Your task to perform on an android device: Show me popular games on the Play Store Image 0: 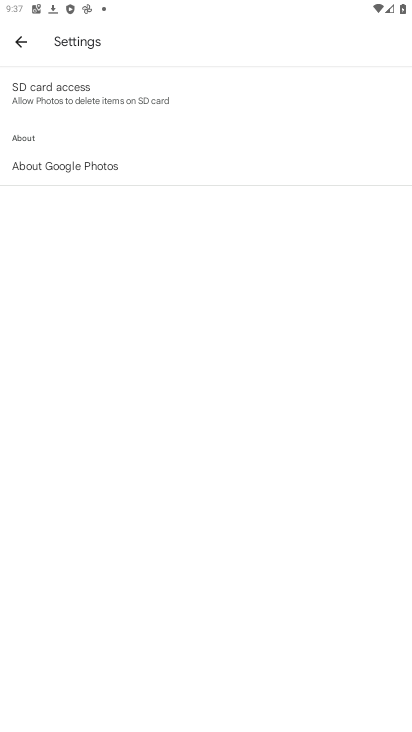
Step 0: press home button
Your task to perform on an android device: Show me popular games on the Play Store Image 1: 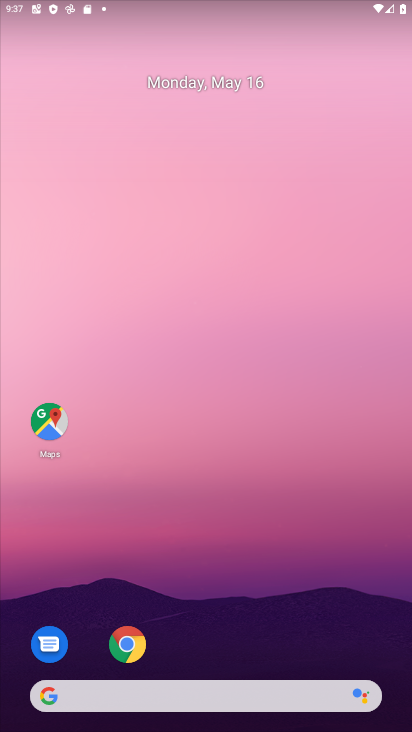
Step 1: drag from (176, 659) to (274, 48)
Your task to perform on an android device: Show me popular games on the Play Store Image 2: 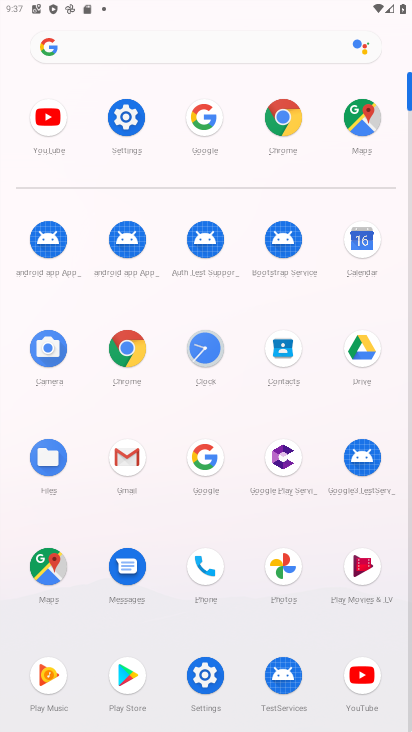
Step 2: click (124, 678)
Your task to perform on an android device: Show me popular games on the Play Store Image 3: 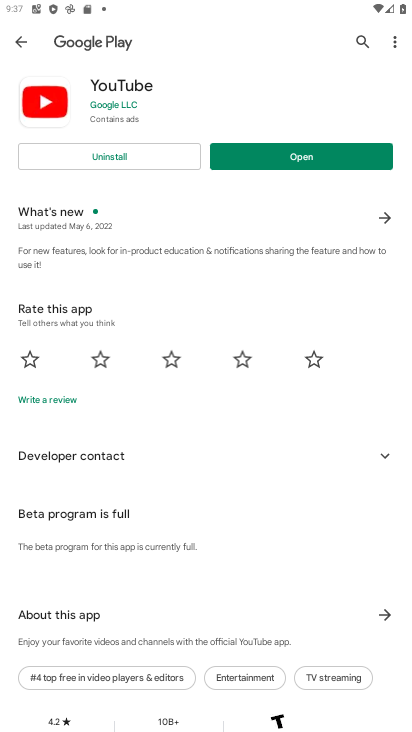
Step 3: press home button
Your task to perform on an android device: Show me popular games on the Play Store Image 4: 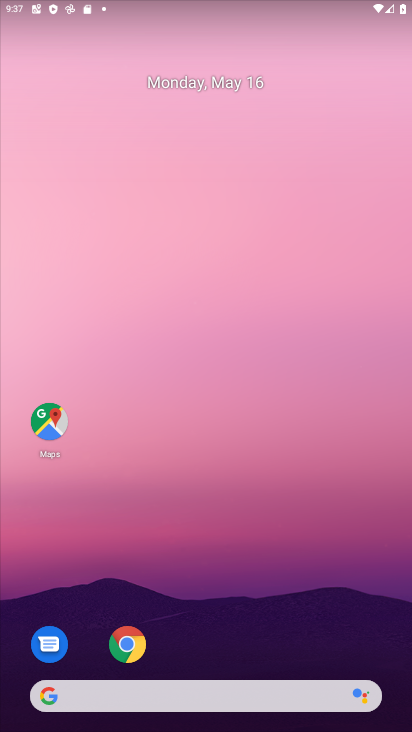
Step 4: drag from (224, 721) to (226, 189)
Your task to perform on an android device: Show me popular games on the Play Store Image 5: 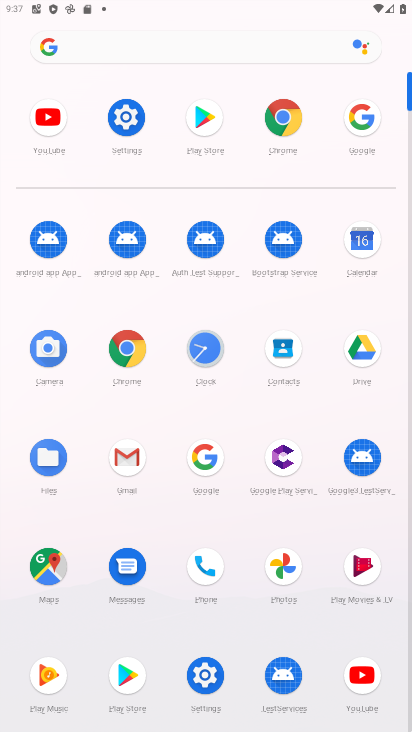
Step 5: click (115, 674)
Your task to perform on an android device: Show me popular games on the Play Store Image 6: 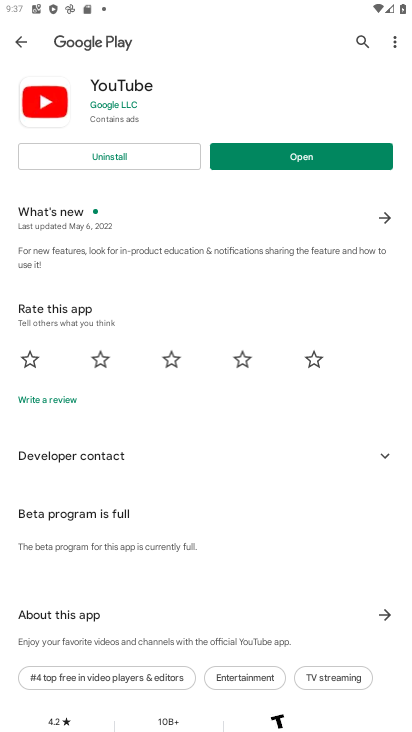
Step 6: click (23, 33)
Your task to perform on an android device: Show me popular games on the Play Store Image 7: 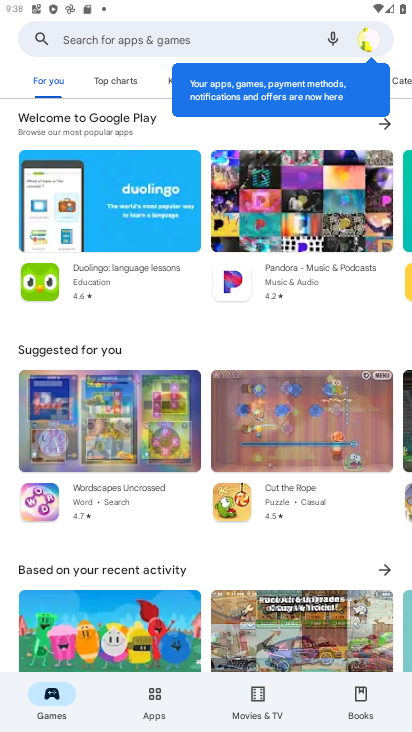
Step 7: task complete